Your task to perform on an android device: turn off data saver in the chrome app Image 0: 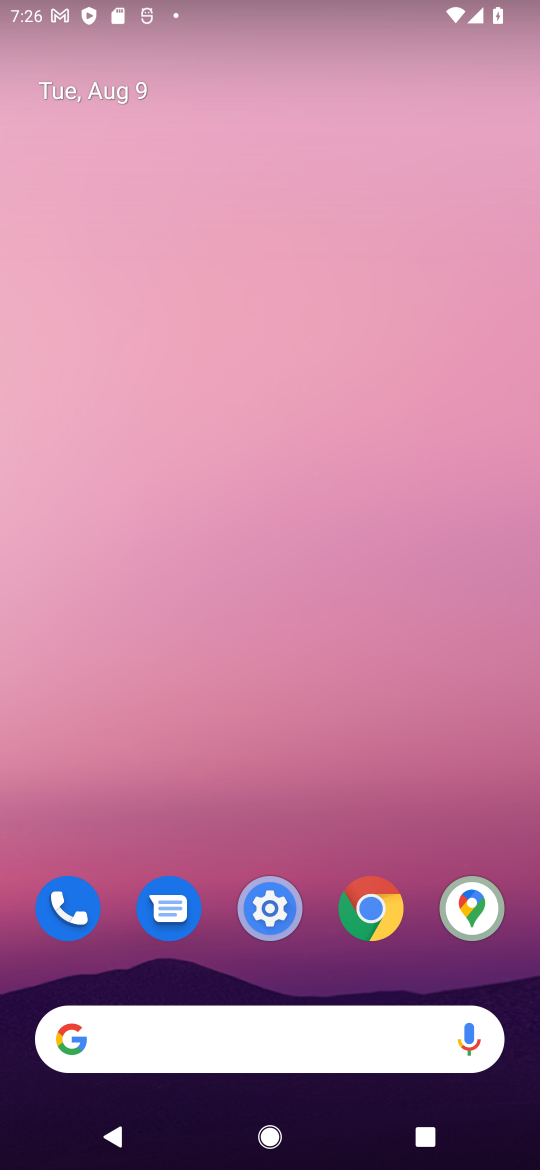
Step 0: click (368, 902)
Your task to perform on an android device: turn off data saver in the chrome app Image 1: 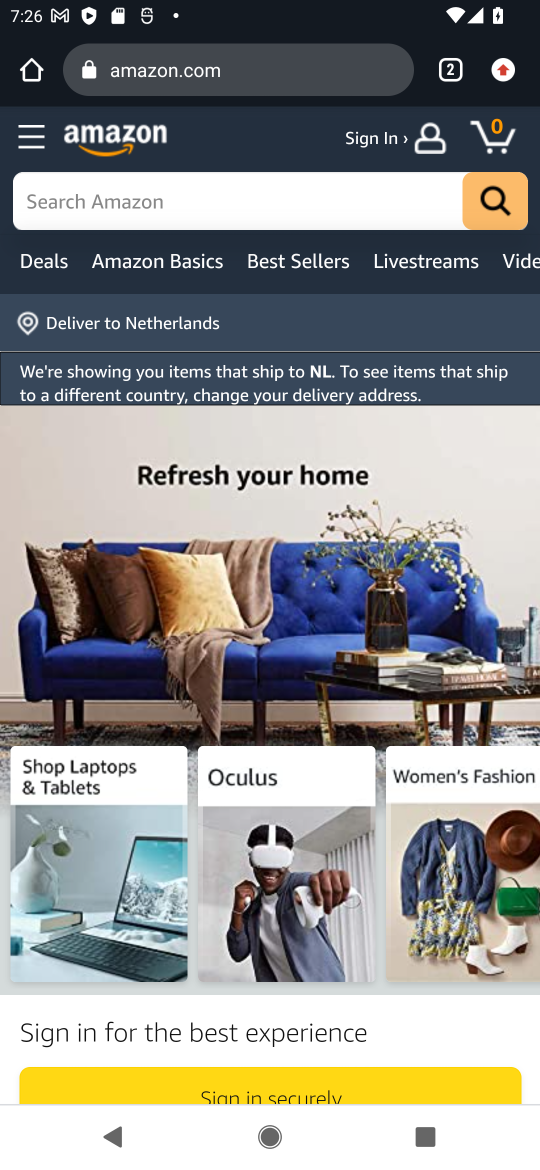
Step 1: click (502, 76)
Your task to perform on an android device: turn off data saver in the chrome app Image 2: 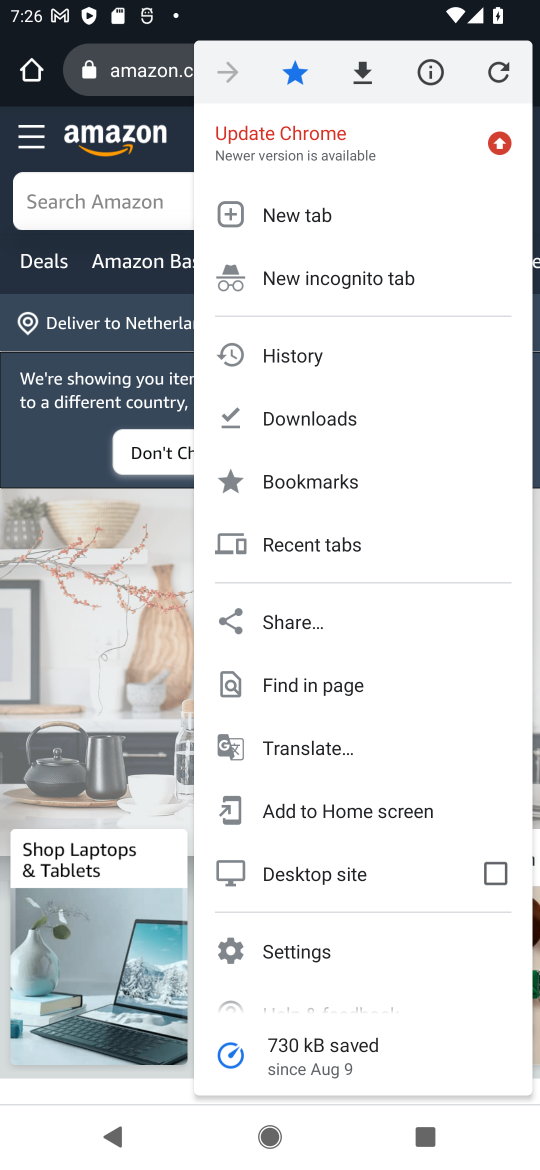
Step 2: click (301, 949)
Your task to perform on an android device: turn off data saver in the chrome app Image 3: 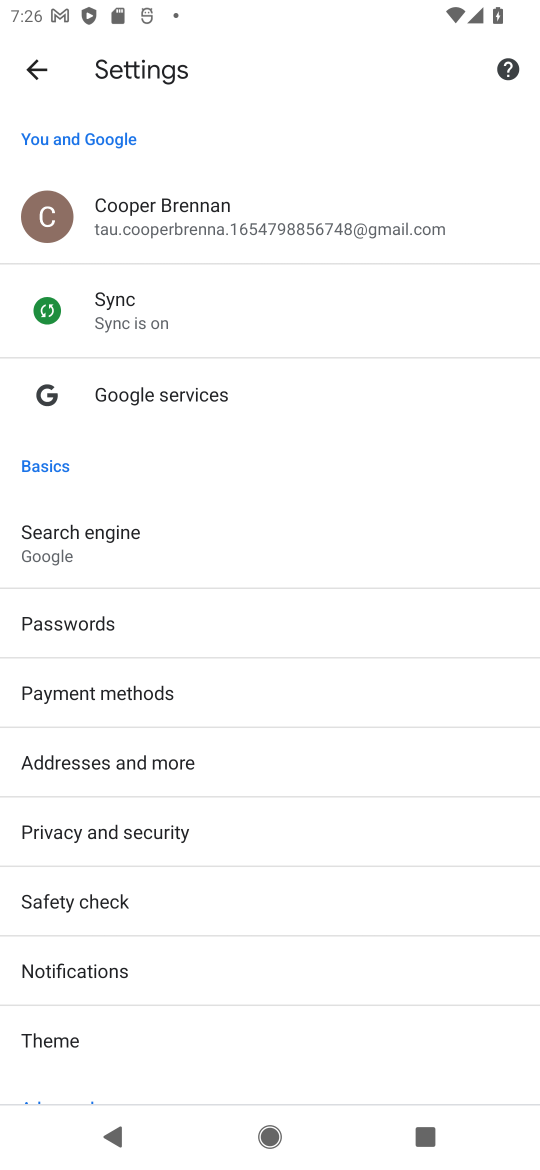
Step 3: drag from (83, 955) to (98, 446)
Your task to perform on an android device: turn off data saver in the chrome app Image 4: 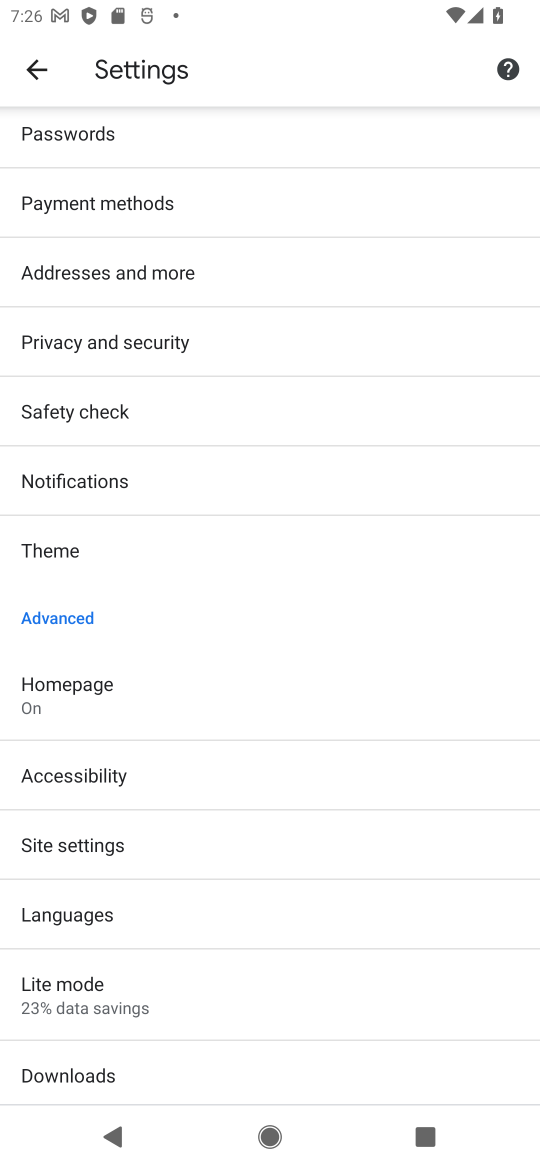
Step 4: click (86, 997)
Your task to perform on an android device: turn off data saver in the chrome app Image 5: 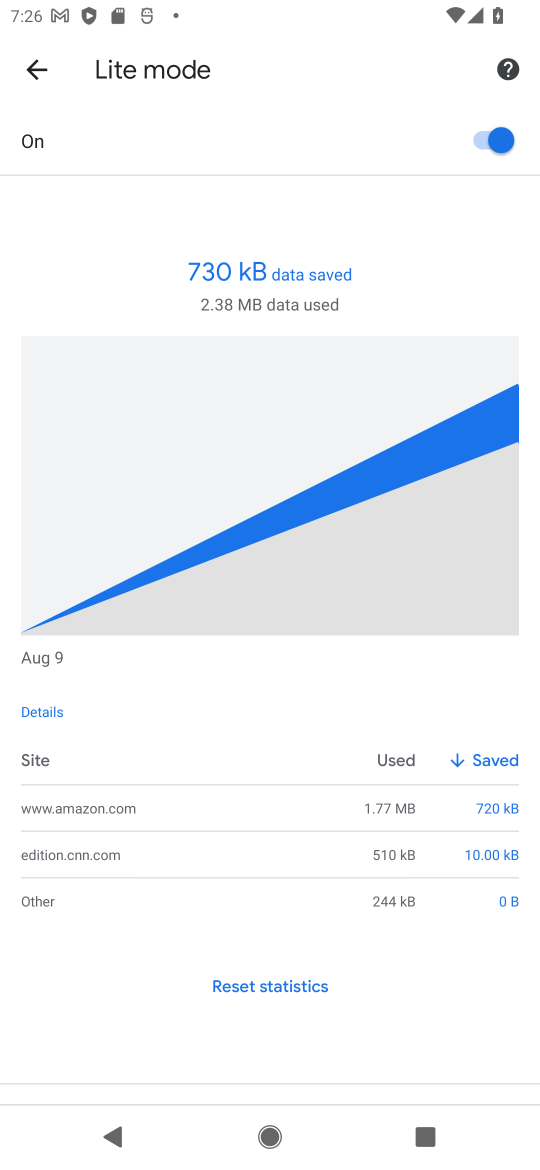
Step 5: click (494, 137)
Your task to perform on an android device: turn off data saver in the chrome app Image 6: 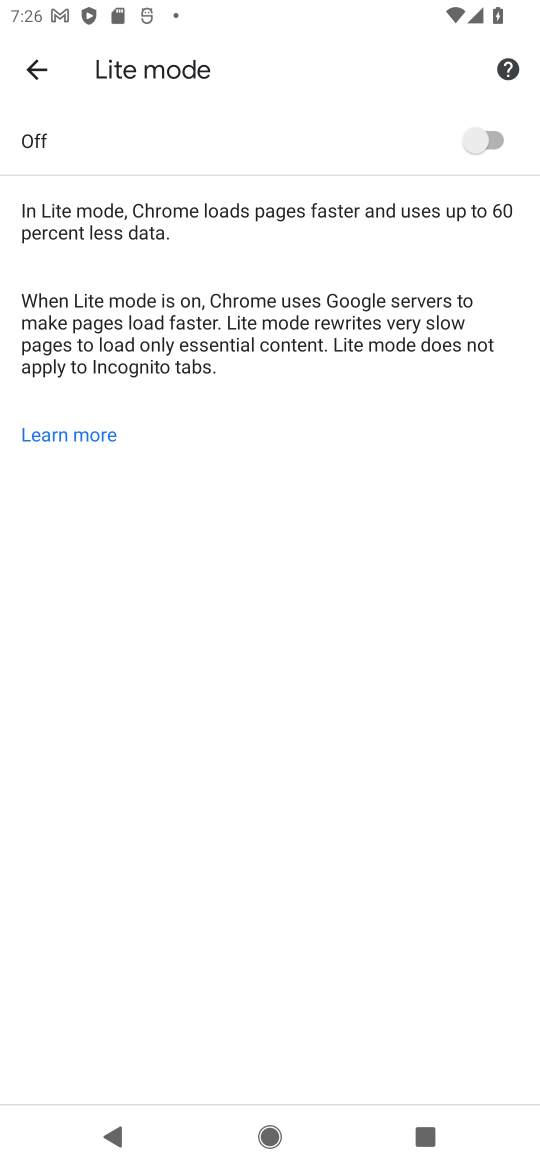
Step 6: task complete